Your task to perform on an android device: clear history in the chrome app Image 0: 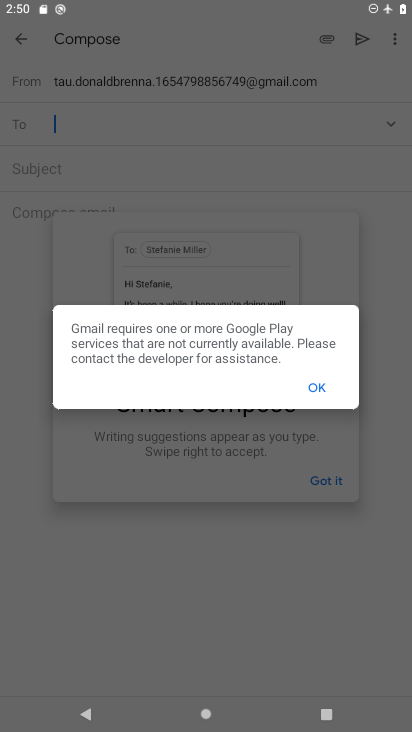
Step 0: press home button
Your task to perform on an android device: clear history in the chrome app Image 1: 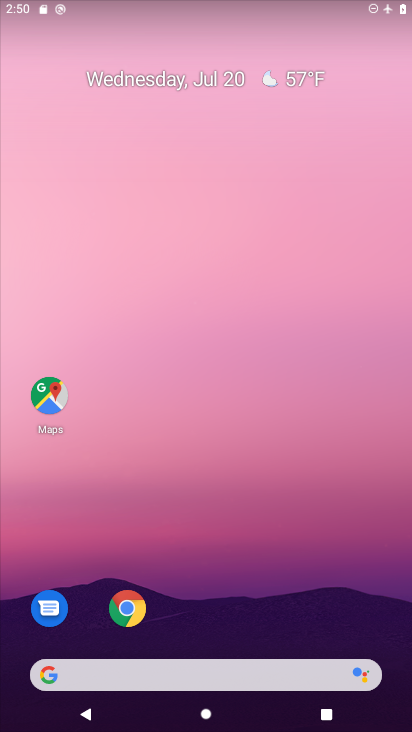
Step 1: drag from (241, 730) to (237, 296)
Your task to perform on an android device: clear history in the chrome app Image 2: 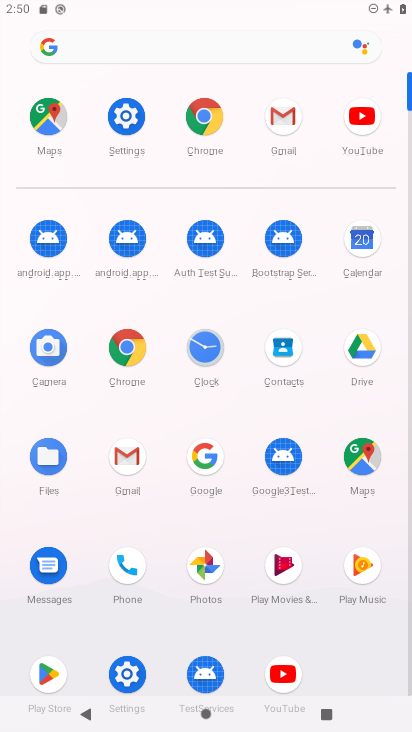
Step 2: click (128, 341)
Your task to perform on an android device: clear history in the chrome app Image 3: 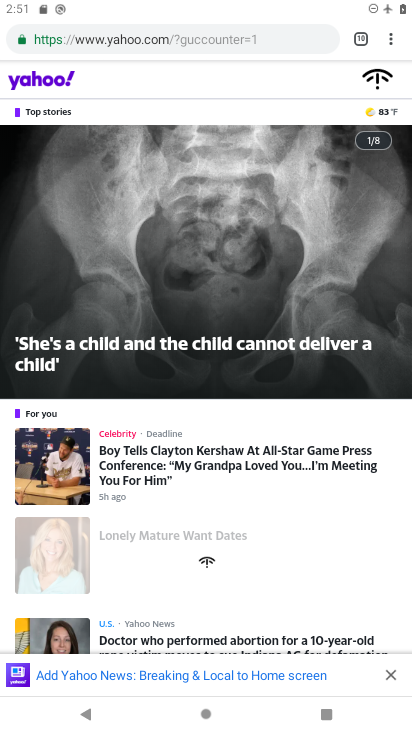
Step 3: click (393, 42)
Your task to perform on an android device: clear history in the chrome app Image 4: 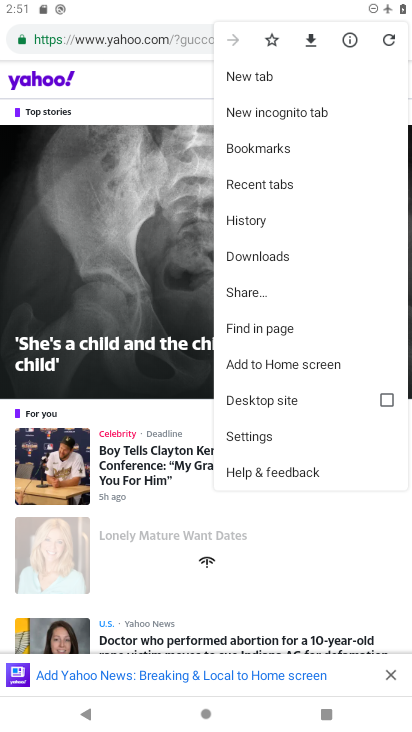
Step 4: click (261, 219)
Your task to perform on an android device: clear history in the chrome app Image 5: 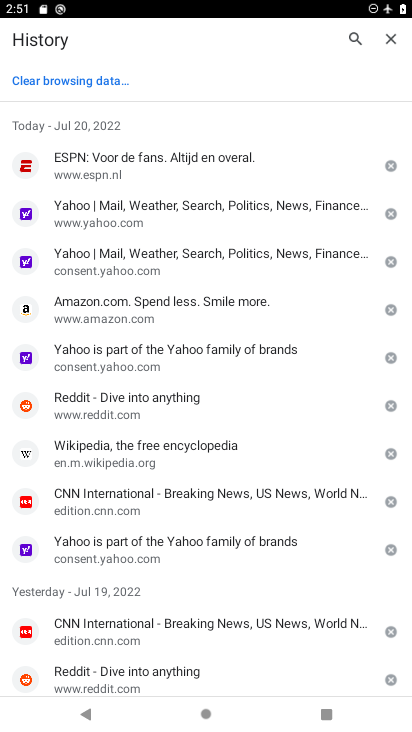
Step 5: click (106, 77)
Your task to perform on an android device: clear history in the chrome app Image 6: 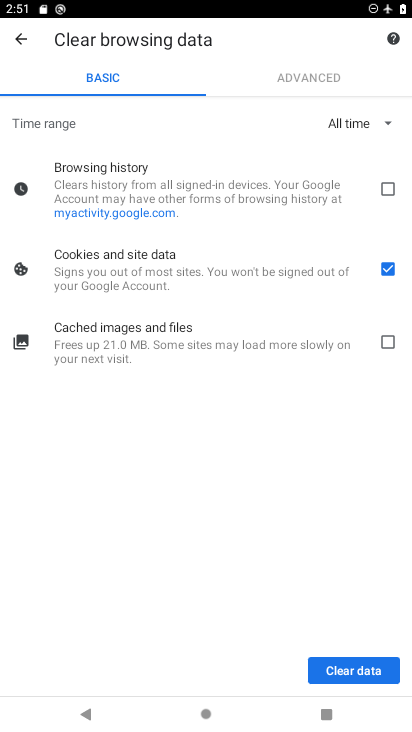
Step 6: click (386, 266)
Your task to perform on an android device: clear history in the chrome app Image 7: 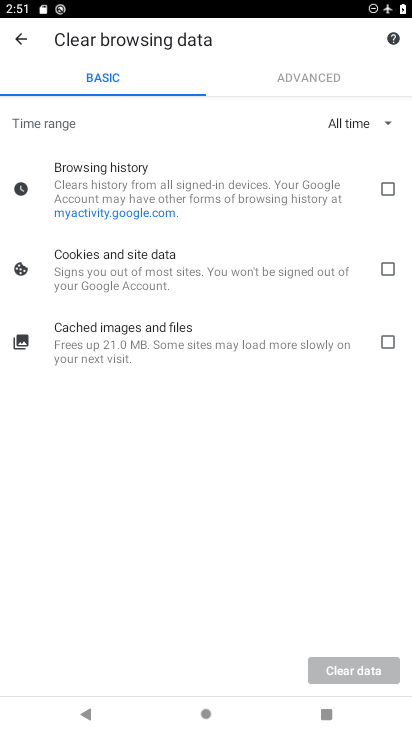
Step 7: click (388, 185)
Your task to perform on an android device: clear history in the chrome app Image 8: 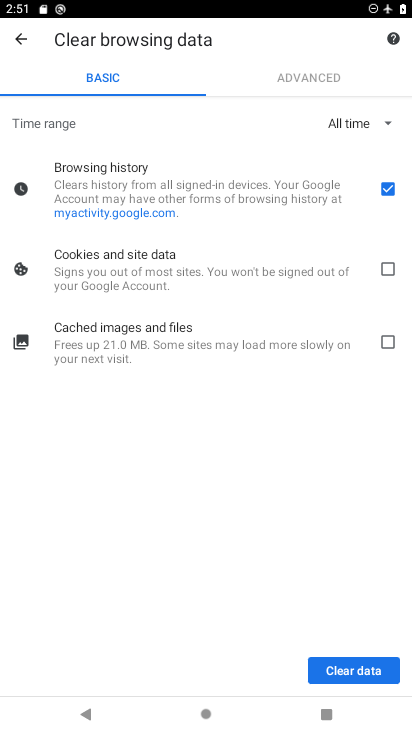
Step 8: click (371, 670)
Your task to perform on an android device: clear history in the chrome app Image 9: 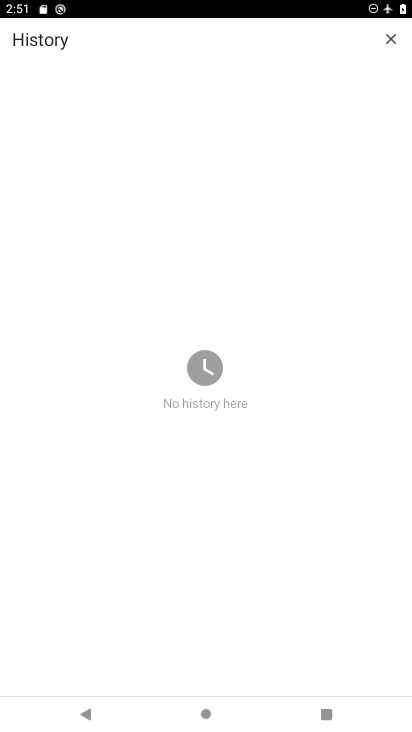
Step 9: task complete